Your task to perform on an android device: Google the capital of Canada Image 0: 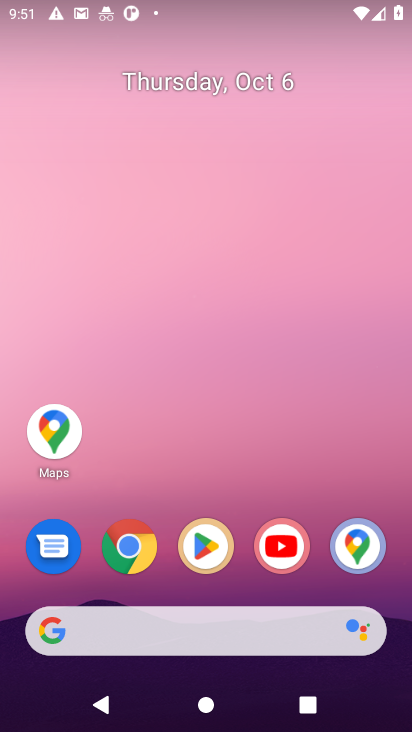
Step 0: click (124, 551)
Your task to perform on an android device: Google the capital of Canada Image 1: 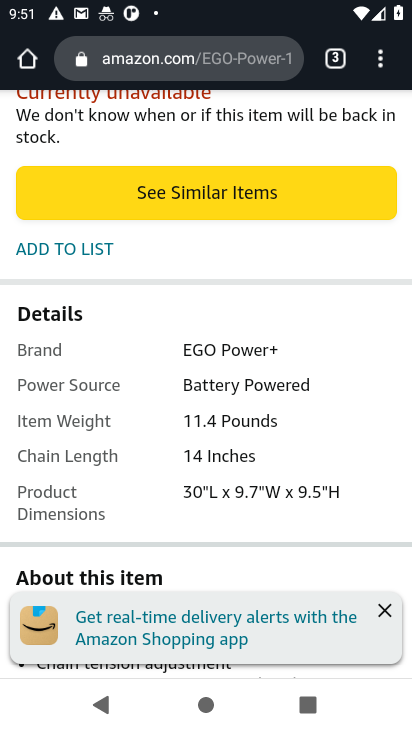
Step 1: click (110, 42)
Your task to perform on an android device: Google the capital of Canada Image 2: 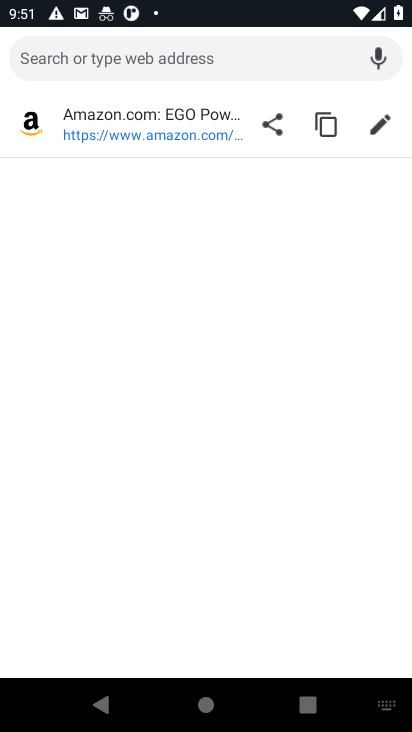
Step 2: type "capital of canada"
Your task to perform on an android device: Google the capital of Canada Image 3: 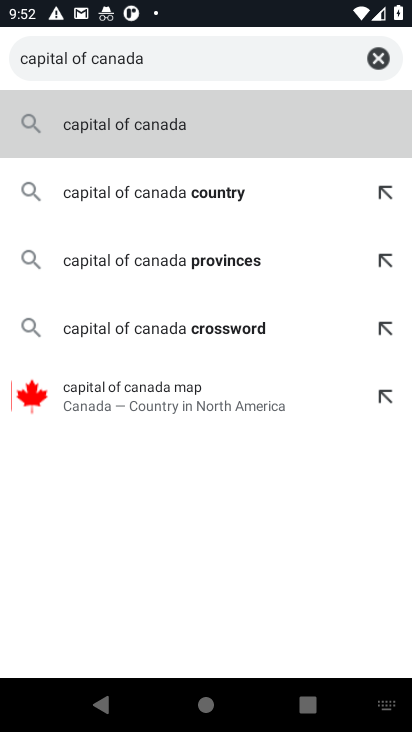
Step 3: click (90, 119)
Your task to perform on an android device: Google the capital of Canada Image 4: 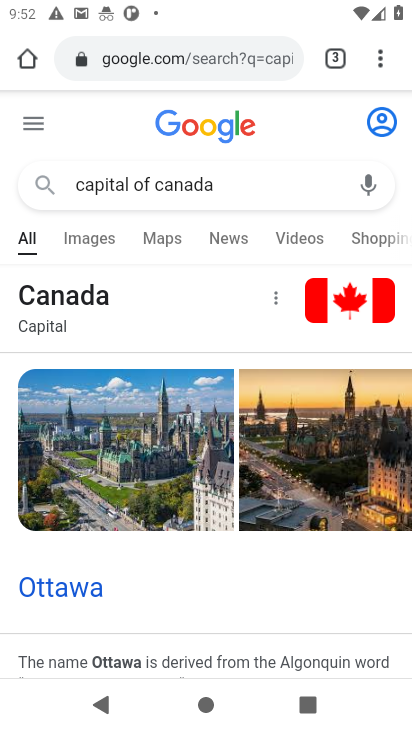
Step 4: task complete